Your task to perform on an android device: What's the weather going to be tomorrow? Image 0: 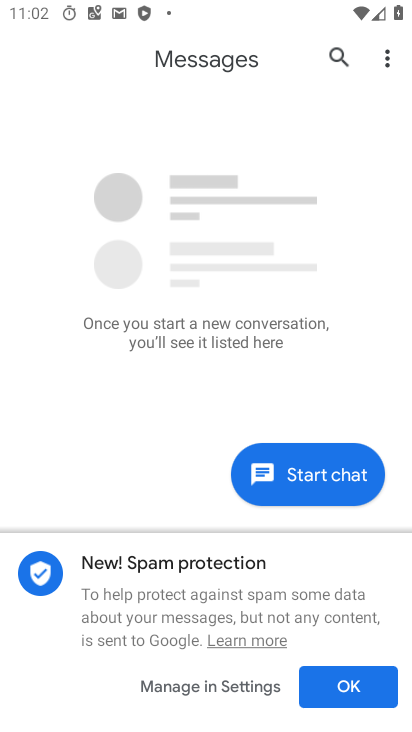
Step 0: press back button
Your task to perform on an android device: What's the weather going to be tomorrow? Image 1: 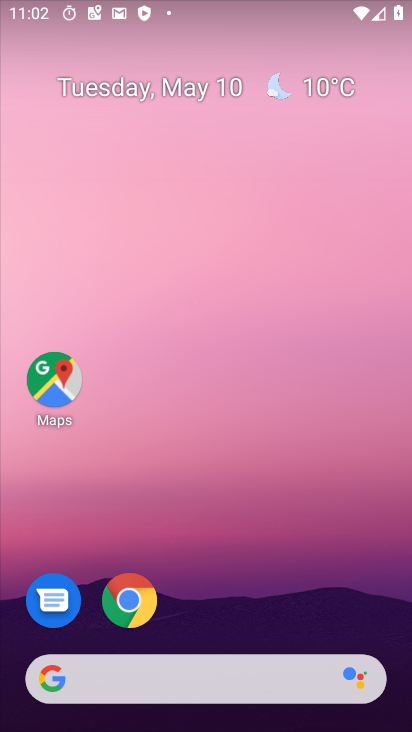
Step 1: drag from (227, 563) to (225, 38)
Your task to perform on an android device: What's the weather going to be tomorrow? Image 2: 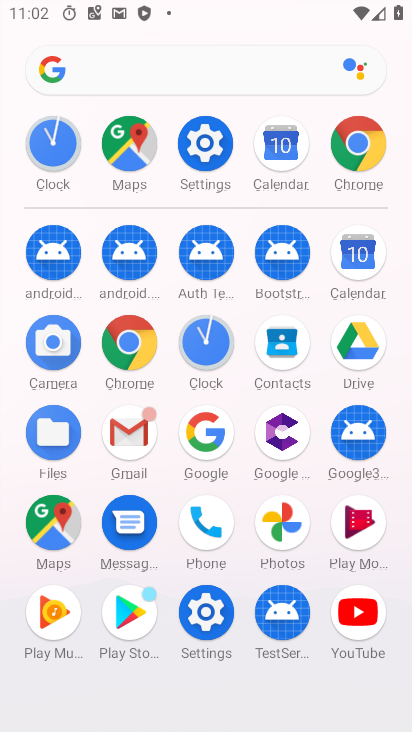
Step 2: click (130, 336)
Your task to perform on an android device: What's the weather going to be tomorrow? Image 3: 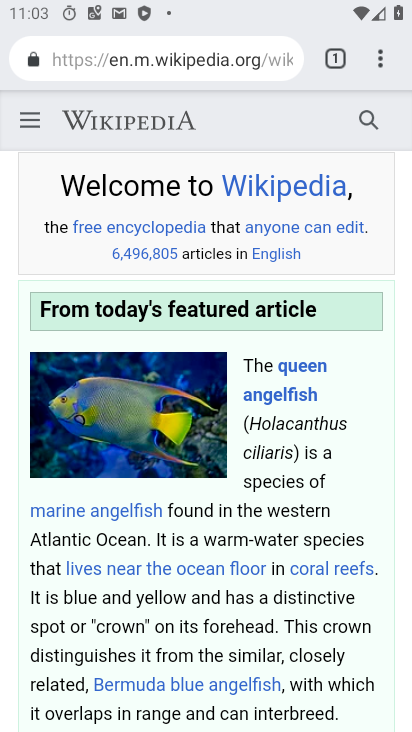
Step 3: click (171, 60)
Your task to perform on an android device: What's the weather going to be tomorrow? Image 4: 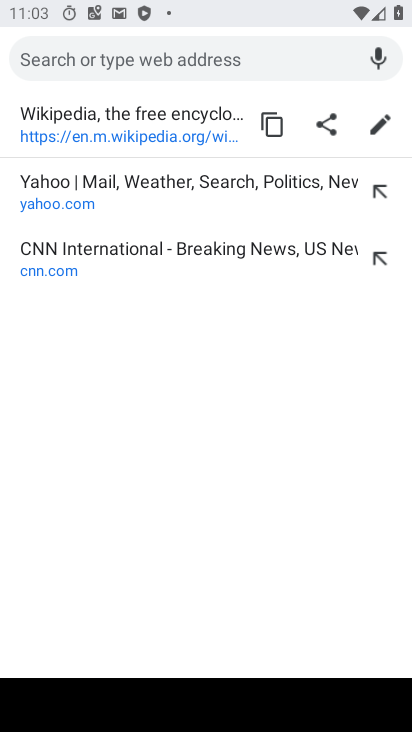
Step 4: type "What's the weather going to be tomorrow?"
Your task to perform on an android device: What's the weather going to be tomorrow? Image 5: 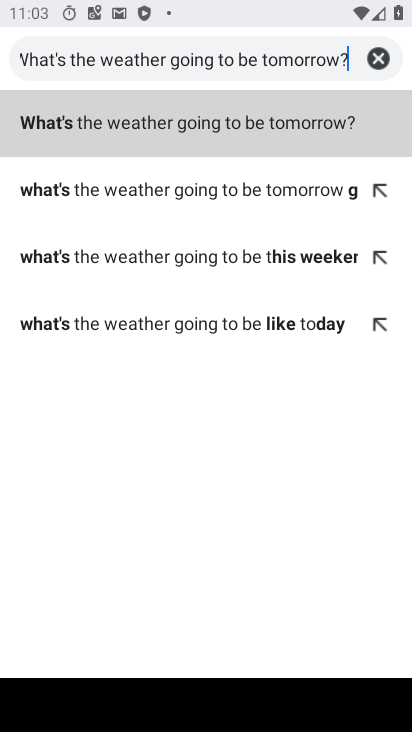
Step 5: type ""
Your task to perform on an android device: What's the weather going to be tomorrow? Image 6: 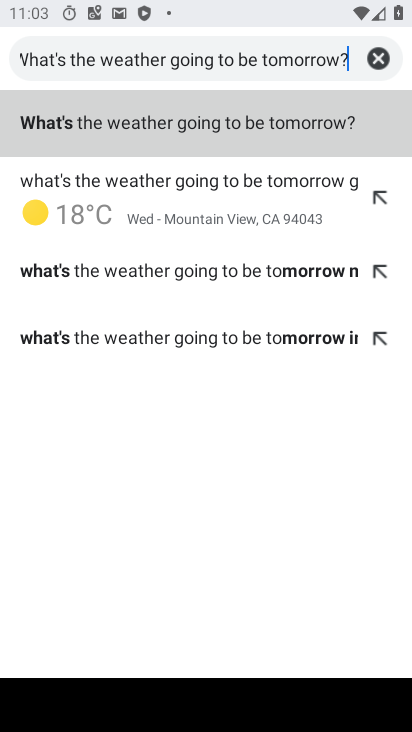
Step 6: click (145, 188)
Your task to perform on an android device: What's the weather going to be tomorrow? Image 7: 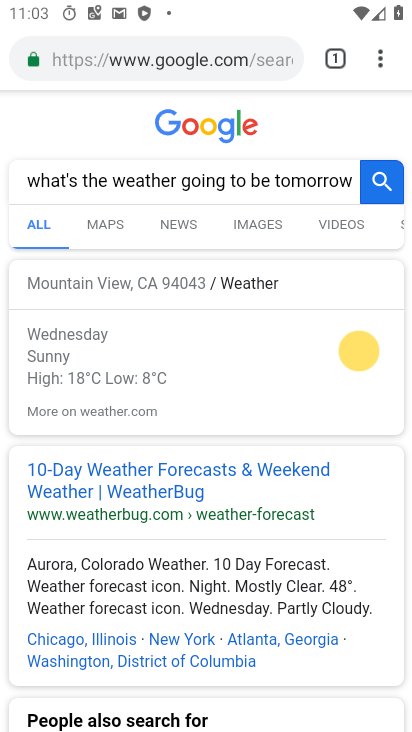
Step 7: task complete